Your task to perform on an android device: Open settings Image 0: 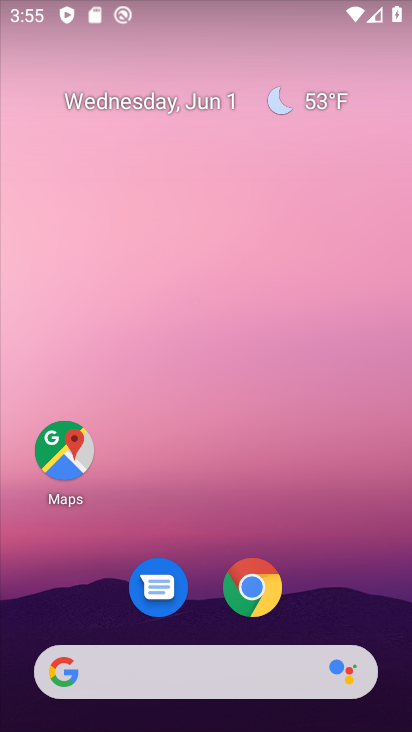
Step 0: drag from (331, 599) to (302, 178)
Your task to perform on an android device: Open settings Image 1: 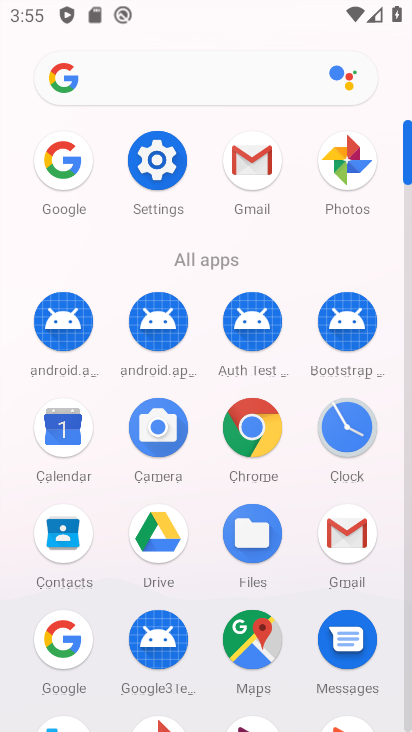
Step 1: click (159, 157)
Your task to perform on an android device: Open settings Image 2: 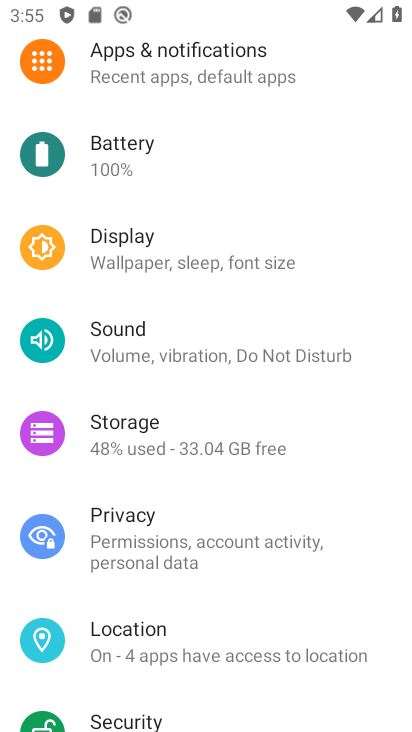
Step 2: task complete